Your task to perform on an android device: Open notification settings Image 0: 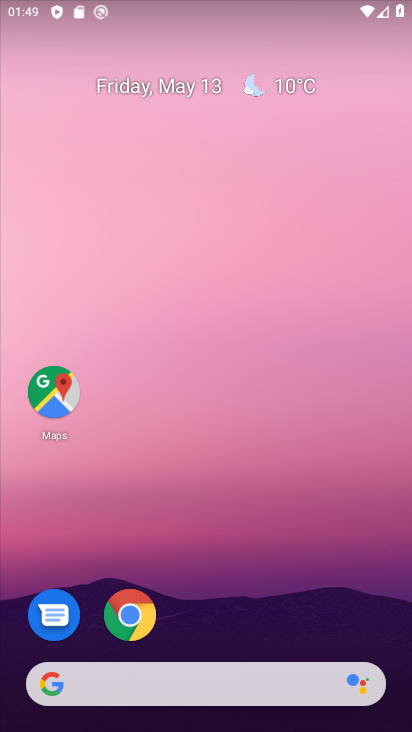
Step 0: drag from (199, 592) to (226, 174)
Your task to perform on an android device: Open notification settings Image 1: 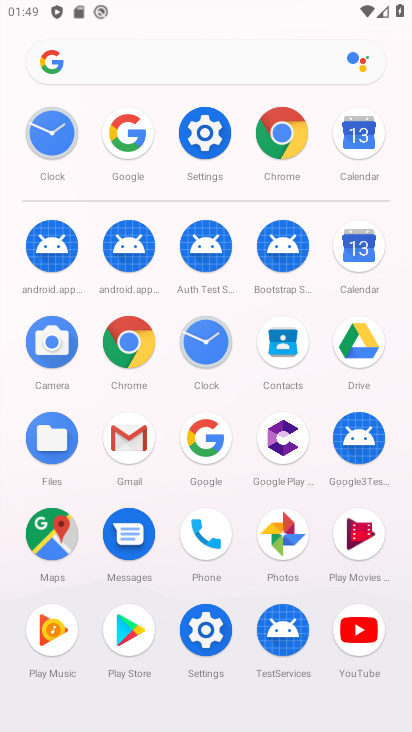
Step 1: click (197, 141)
Your task to perform on an android device: Open notification settings Image 2: 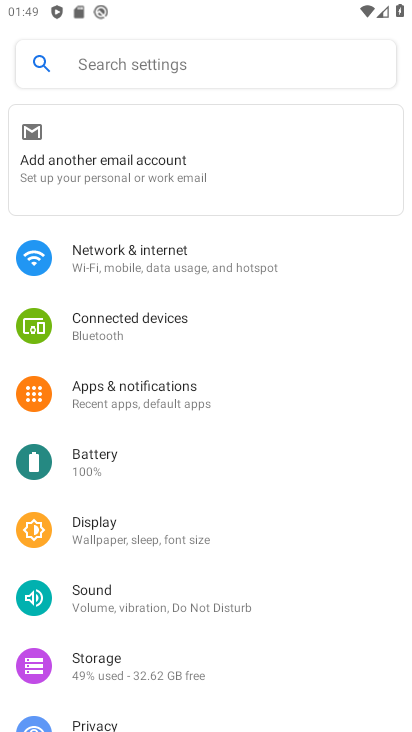
Step 2: click (155, 383)
Your task to perform on an android device: Open notification settings Image 3: 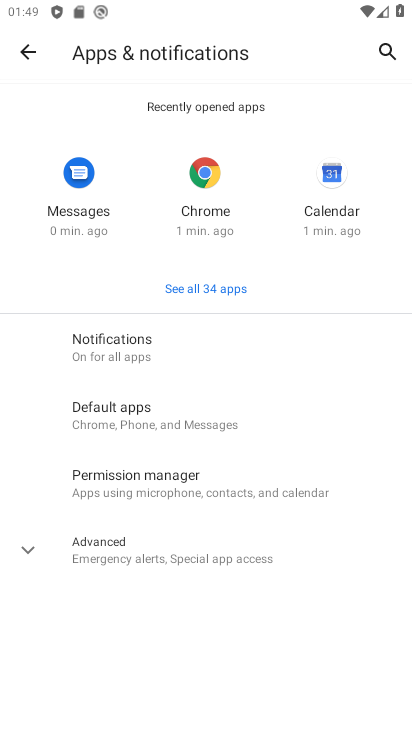
Step 3: click (130, 335)
Your task to perform on an android device: Open notification settings Image 4: 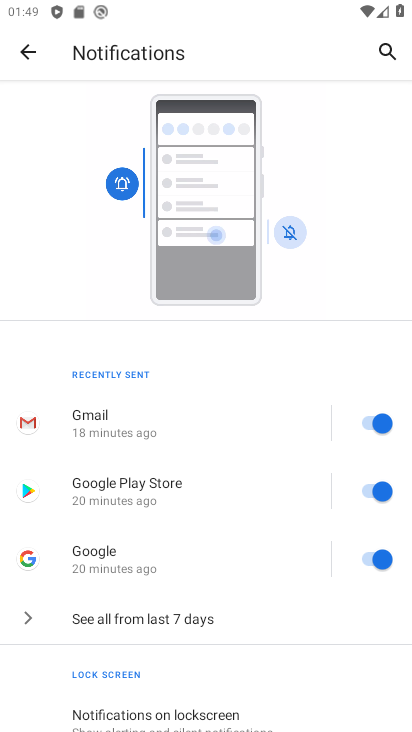
Step 4: task complete